Your task to perform on an android device: Open the Play Movies app and select the watchlist tab. Image 0: 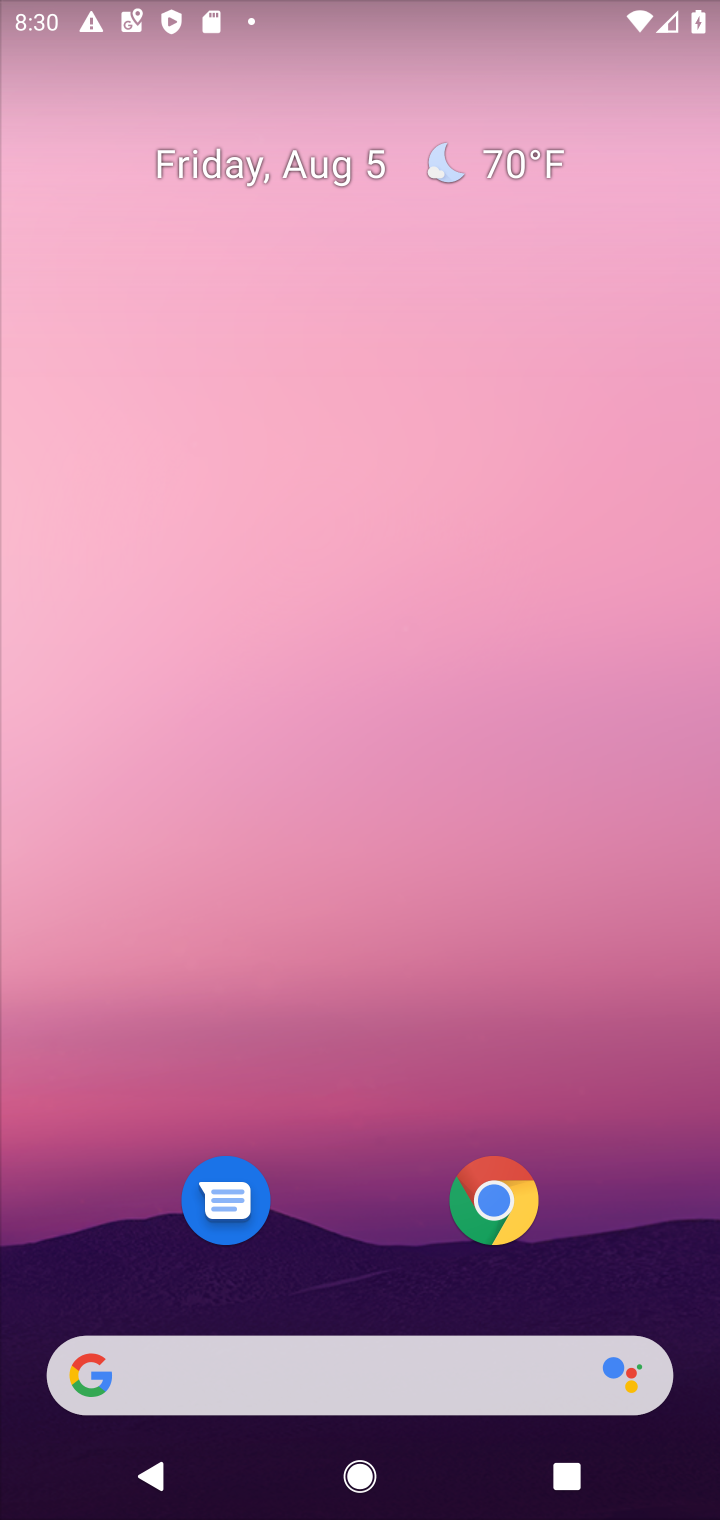
Step 0: drag from (369, 1262) to (369, 491)
Your task to perform on an android device: Open the Play Movies app and select the watchlist tab. Image 1: 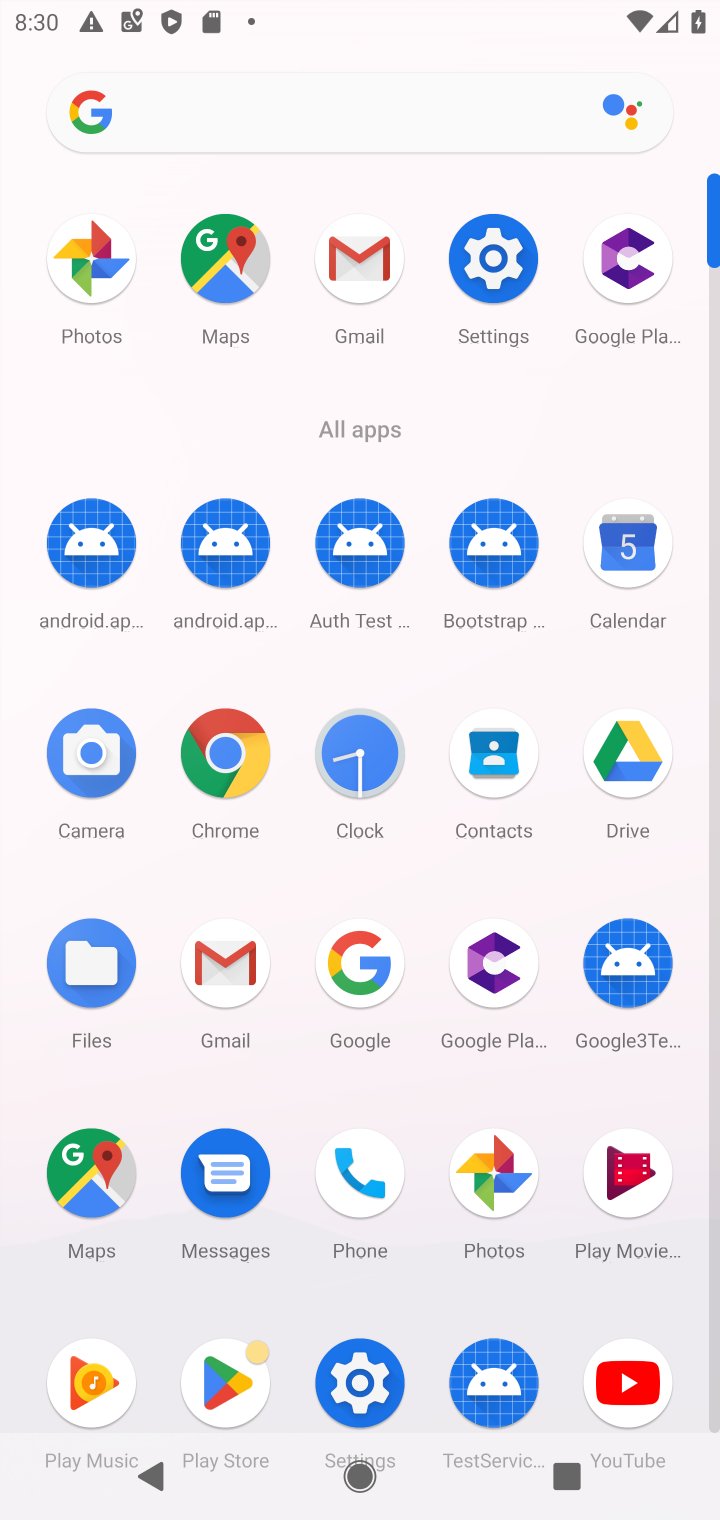
Step 1: click (609, 1213)
Your task to perform on an android device: Open the Play Movies app and select the watchlist tab. Image 2: 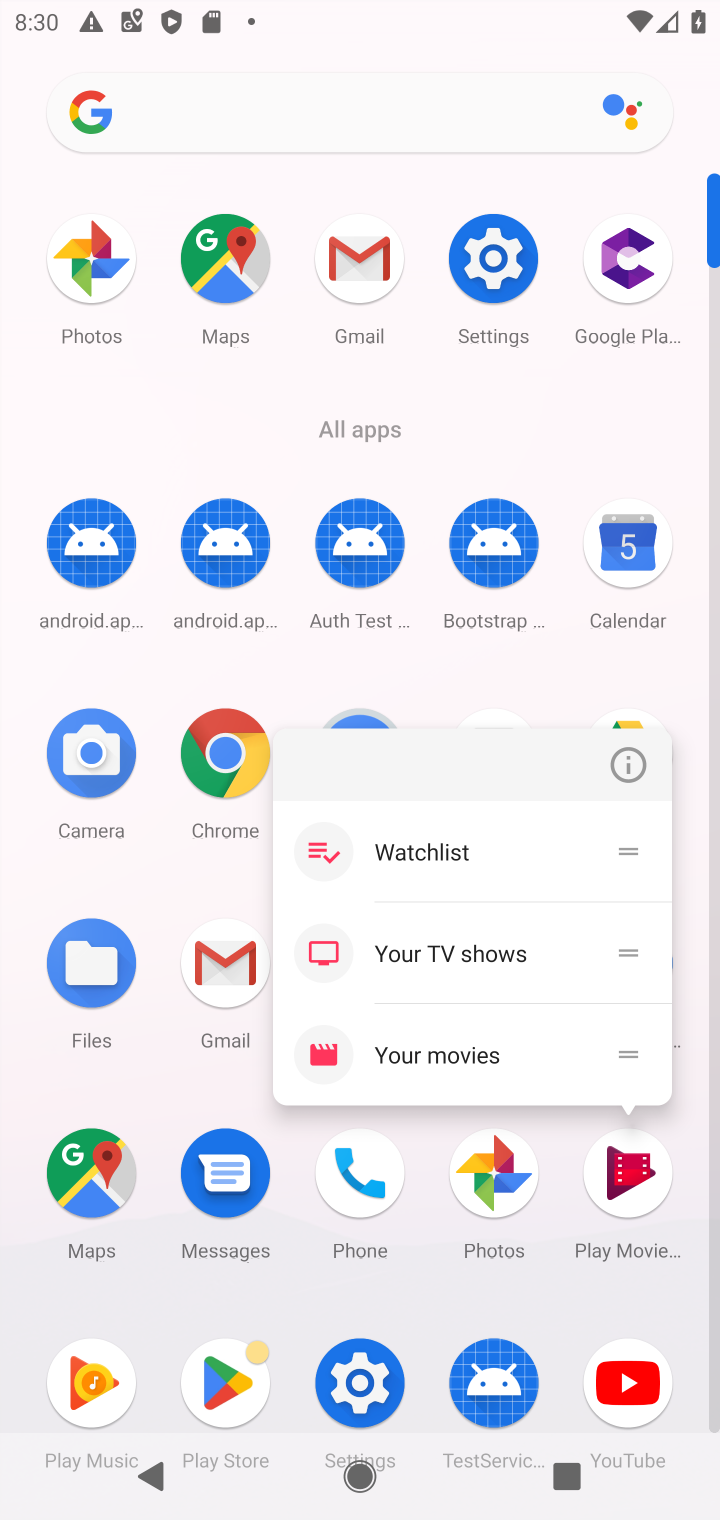
Step 2: click (618, 1149)
Your task to perform on an android device: Open the Play Movies app and select the watchlist tab. Image 3: 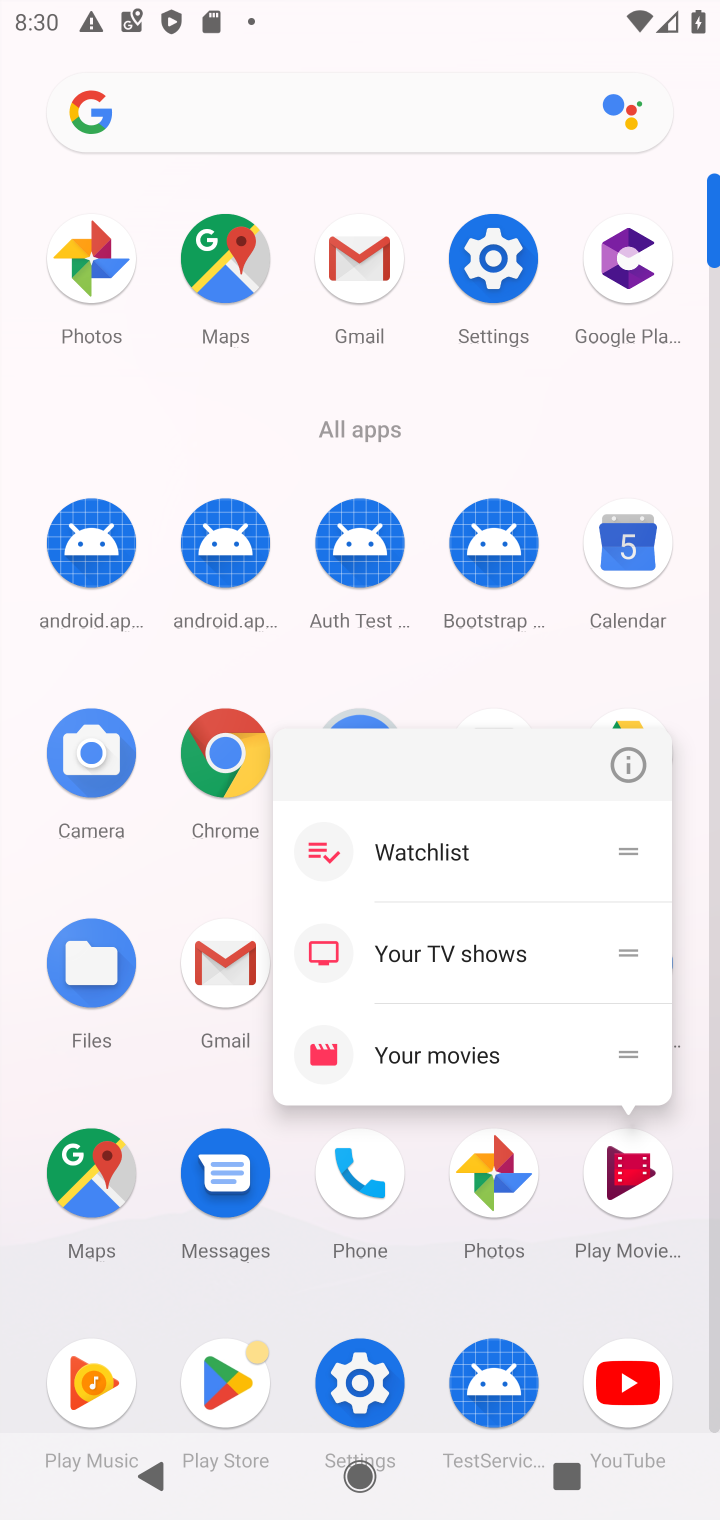
Step 3: click (609, 1164)
Your task to perform on an android device: Open the Play Movies app and select the watchlist tab. Image 4: 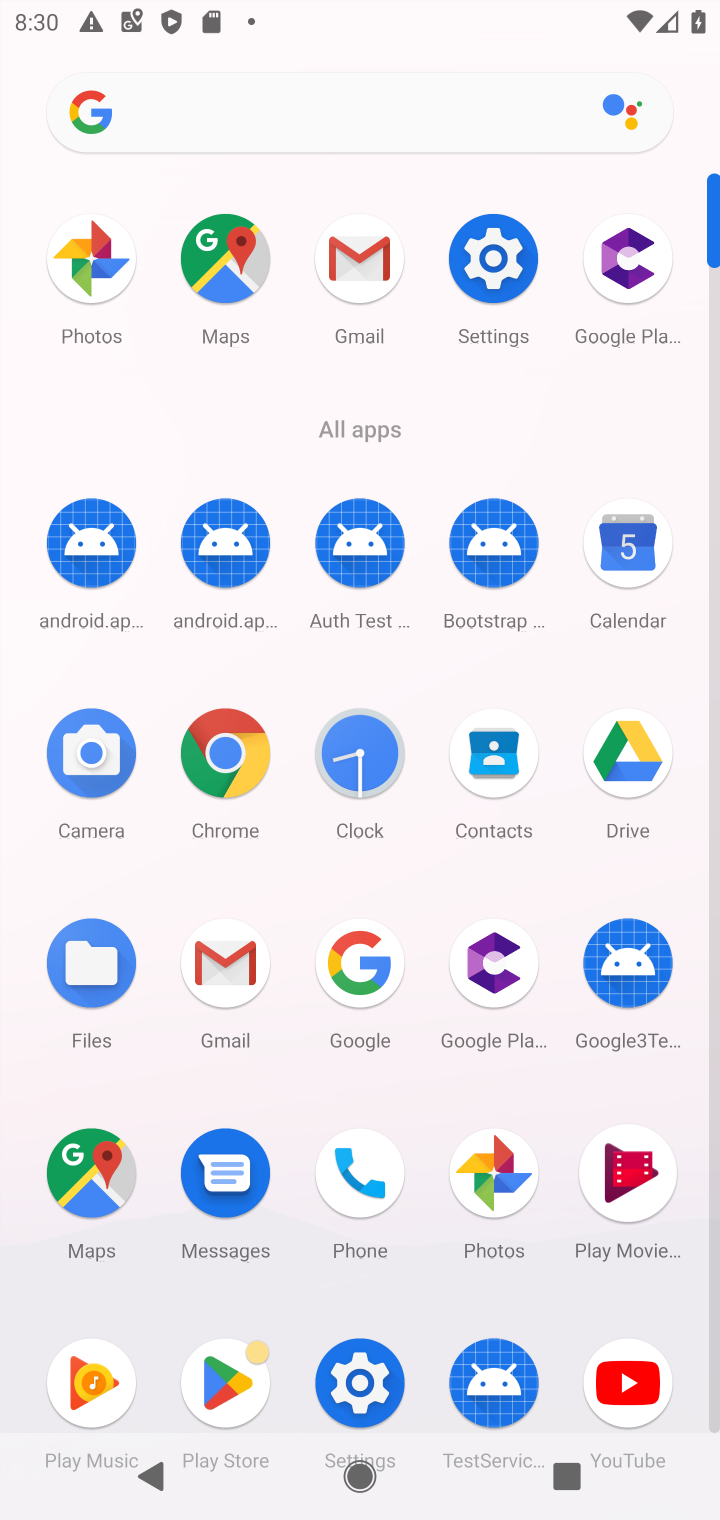
Step 4: click (615, 1229)
Your task to perform on an android device: Open the Play Movies app and select the watchlist tab. Image 5: 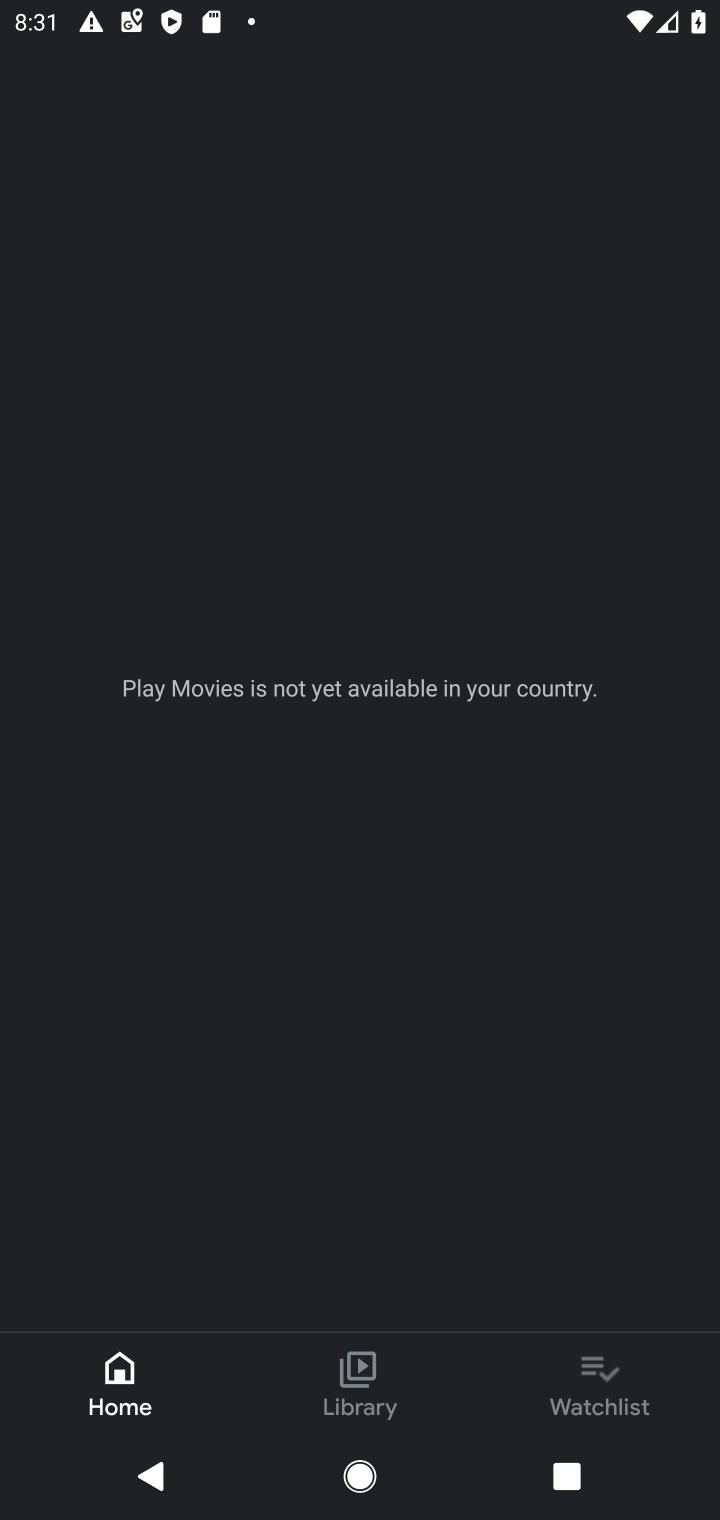
Step 5: click (614, 1384)
Your task to perform on an android device: Open the Play Movies app and select the watchlist tab. Image 6: 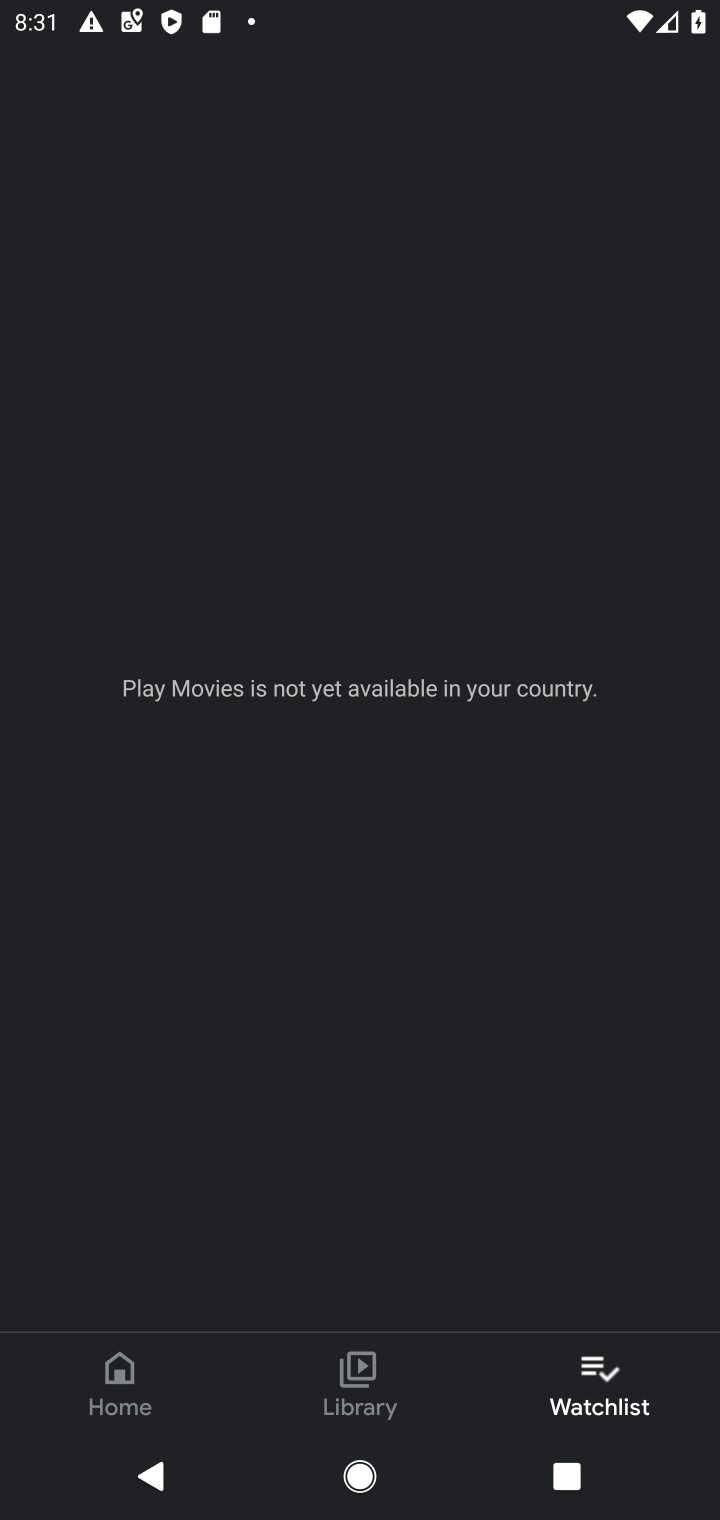
Step 6: task complete